Your task to perform on an android device: What is the news today? Image 0: 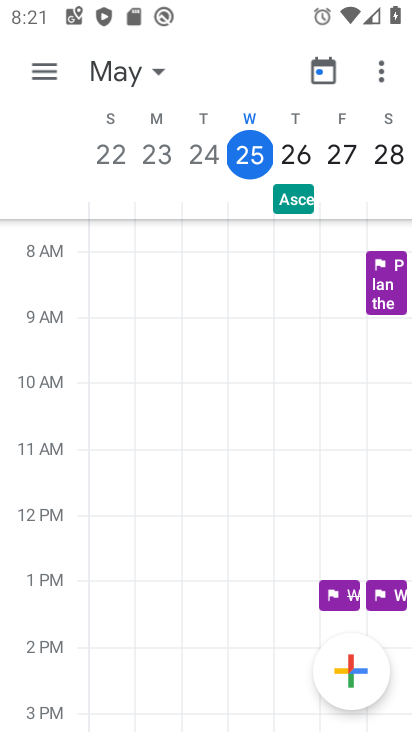
Step 0: press home button
Your task to perform on an android device: What is the news today? Image 1: 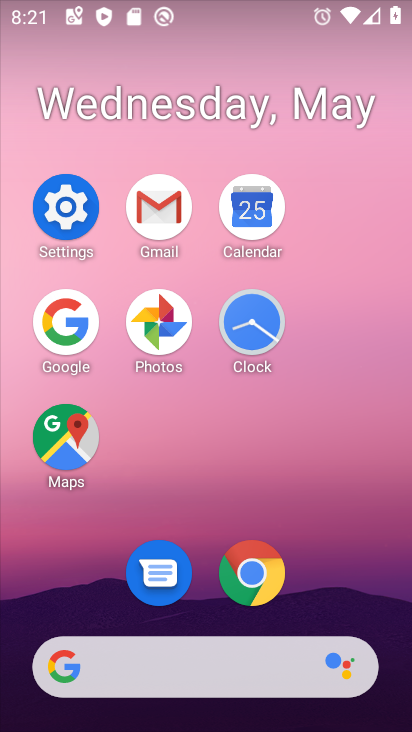
Step 1: click (78, 315)
Your task to perform on an android device: What is the news today? Image 2: 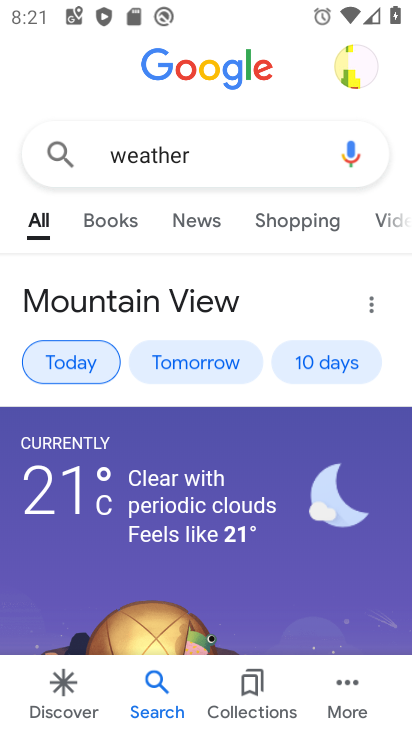
Step 2: click (224, 157)
Your task to perform on an android device: What is the news today? Image 3: 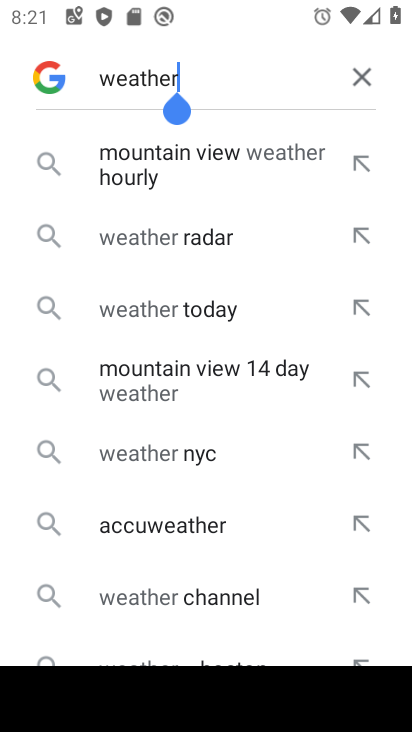
Step 3: click (359, 78)
Your task to perform on an android device: What is the news today? Image 4: 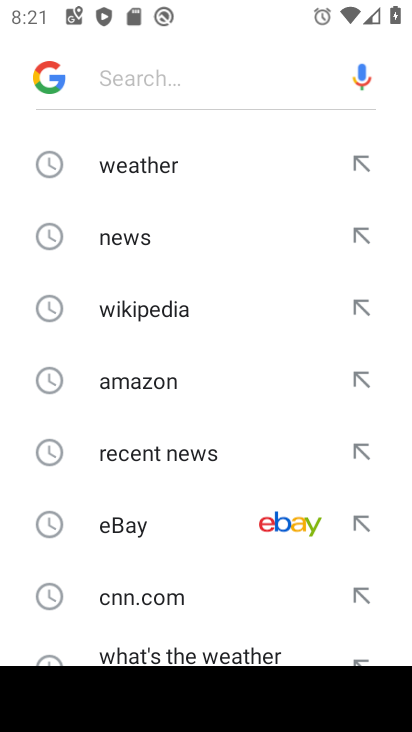
Step 4: click (166, 241)
Your task to perform on an android device: What is the news today? Image 5: 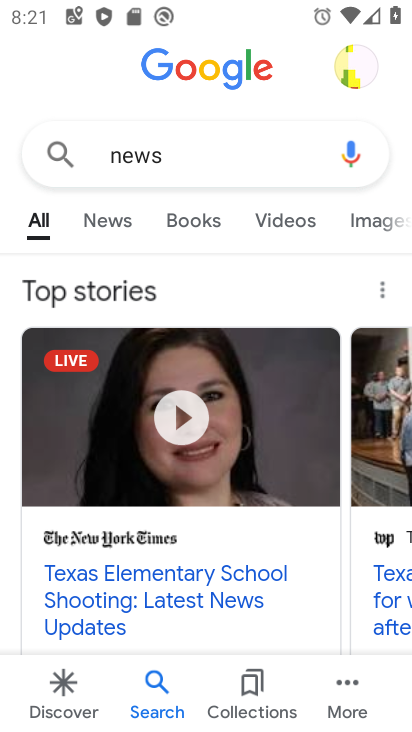
Step 5: task complete